Your task to perform on an android device: What's the weather? Image 0: 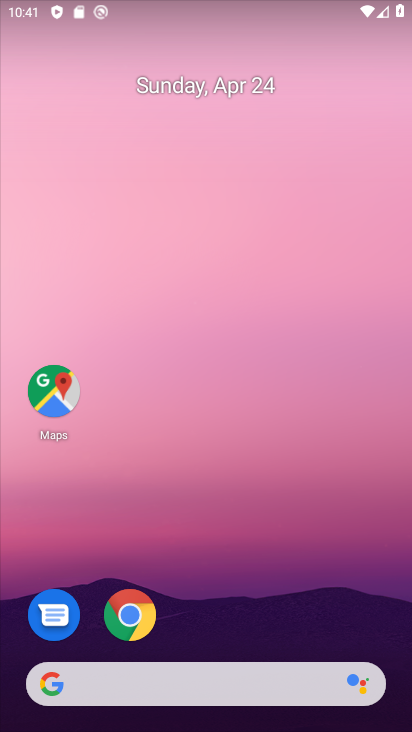
Step 0: drag from (214, 638) to (244, 36)
Your task to perform on an android device: What's the weather? Image 1: 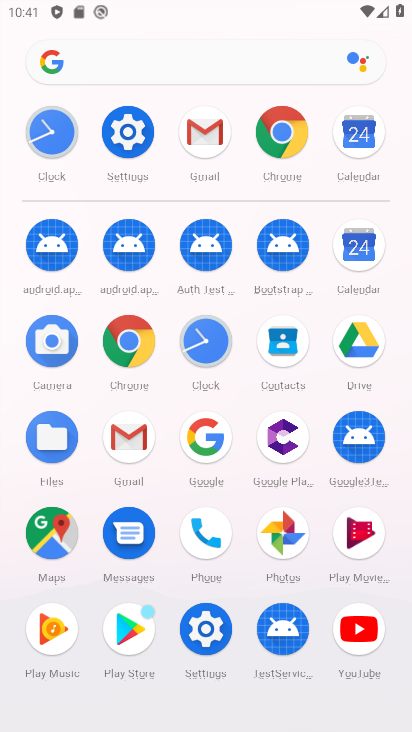
Step 1: press back button
Your task to perform on an android device: What's the weather? Image 2: 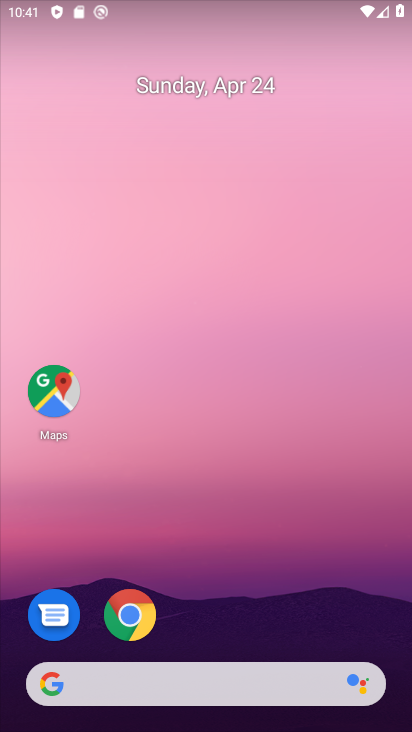
Step 2: drag from (11, 295) to (396, 268)
Your task to perform on an android device: What's the weather? Image 3: 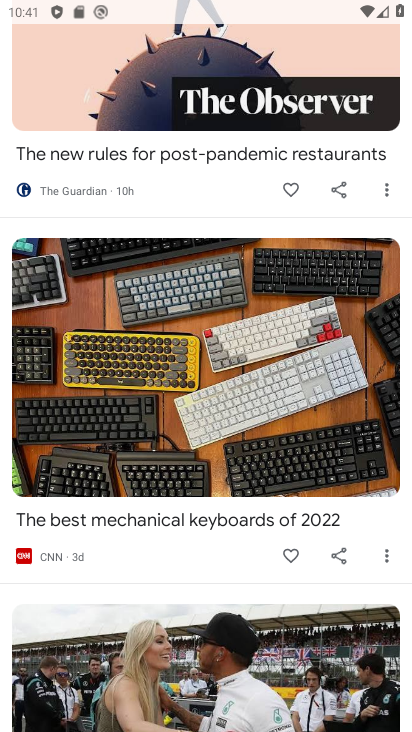
Step 3: press back button
Your task to perform on an android device: What's the weather? Image 4: 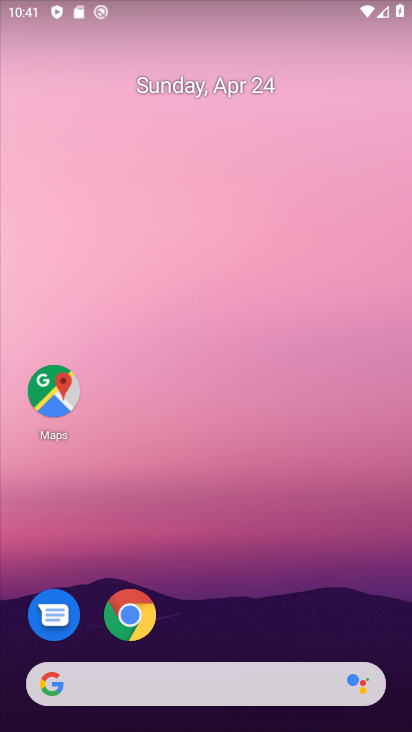
Step 4: click (158, 673)
Your task to perform on an android device: What's the weather? Image 5: 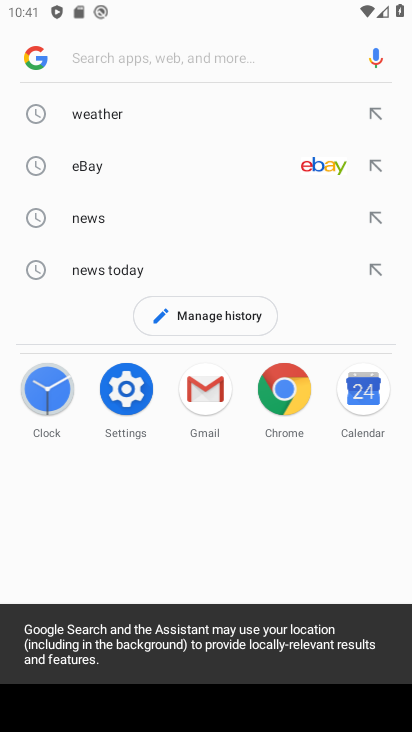
Step 5: click (130, 108)
Your task to perform on an android device: What's the weather? Image 6: 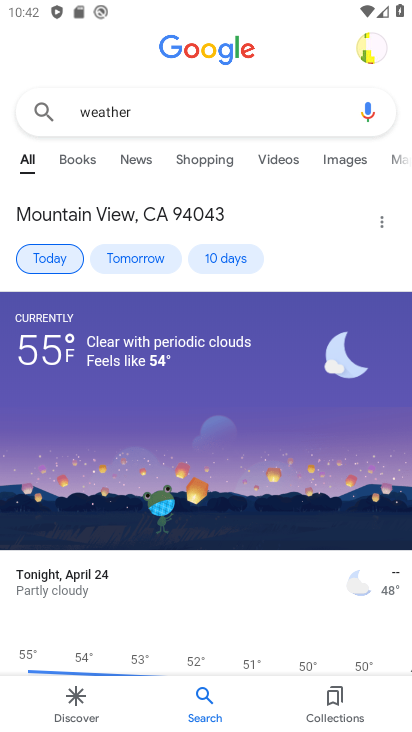
Step 6: task complete